Your task to perform on an android device: Go to location settings Image 0: 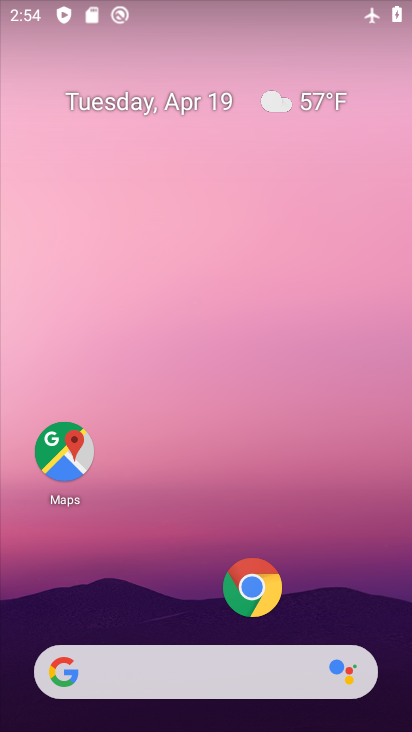
Step 0: drag from (159, 591) to (350, 0)
Your task to perform on an android device: Go to location settings Image 1: 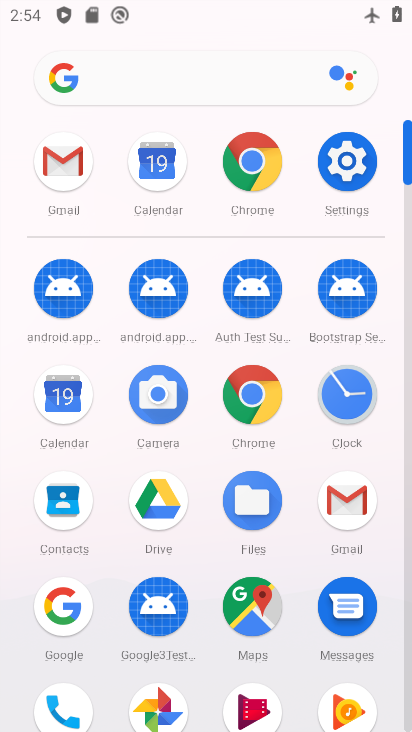
Step 1: click (355, 167)
Your task to perform on an android device: Go to location settings Image 2: 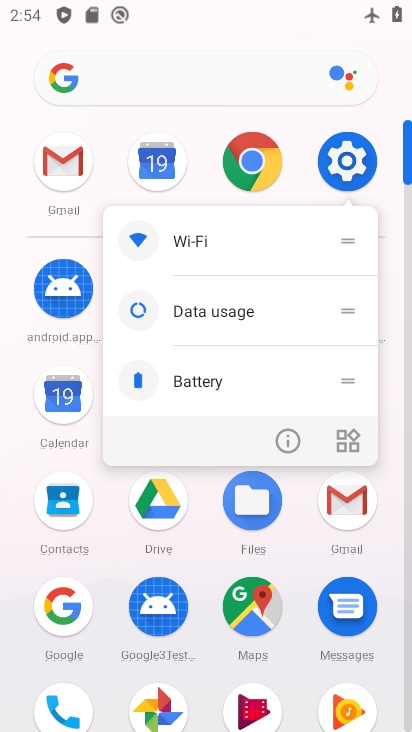
Step 2: click (349, 160)
Your task to perform on an android device: Go to location settings Image 3: 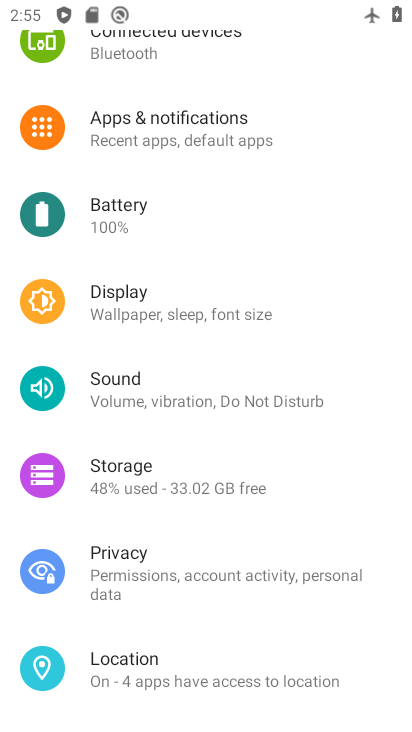
Step 3: click (117, 658)
Your task to perform on an android device: Go to location settings Image 4: 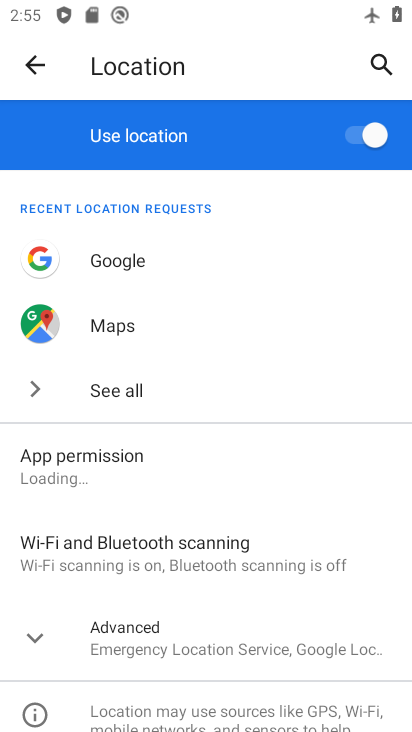
Step 4: task complete